Your task to perform on an android device: move an email to a new category in the gmail app Image 0: 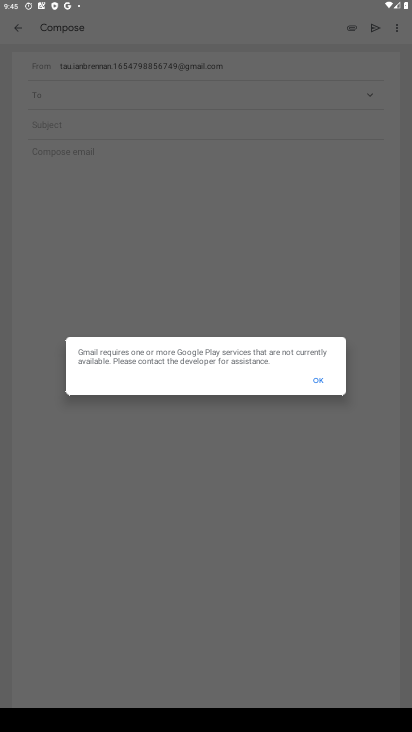
Step 0: press home button
Your task to perform on an android device: move an email to a new category in the gmail app Image 1: 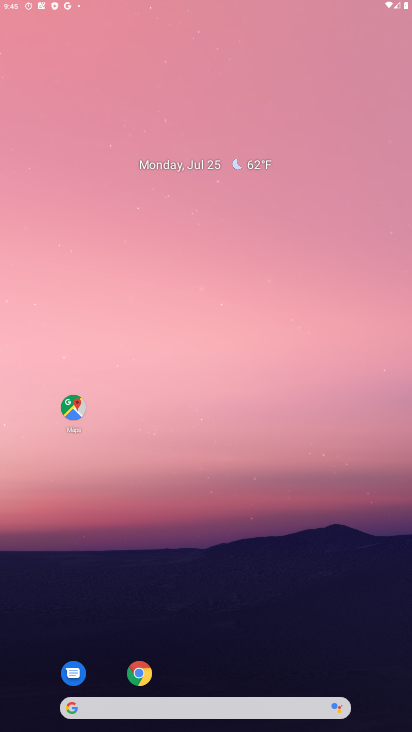
Step 1: drag from (190, 556) to (316, 27)
Your task to perform on an android device: move an email to a new category in the gmail app Image 2: 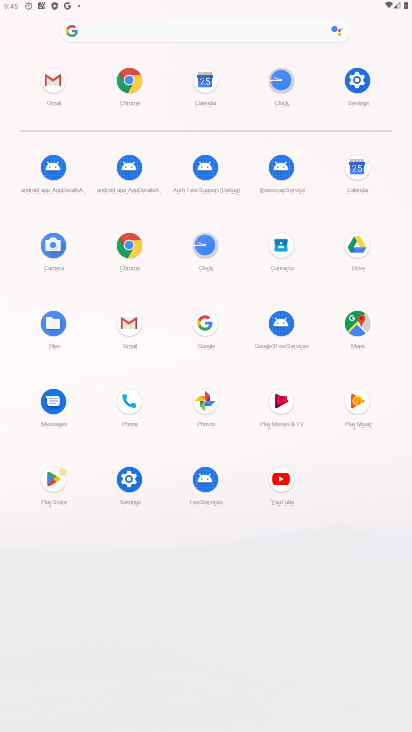
Step 2: click (126, 316)
Your task to perform on an android device: move an email to a new category in the gmail app Image 3: 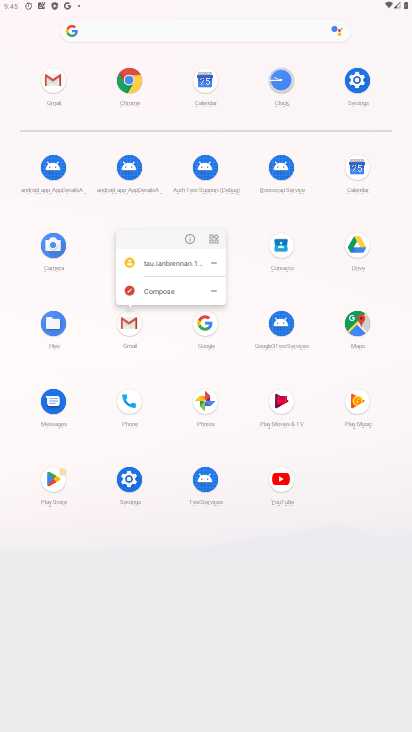
Step 3: click (189, 239)
Your task to perform on an android device: move an email to a new category in the gmail app Image 4: 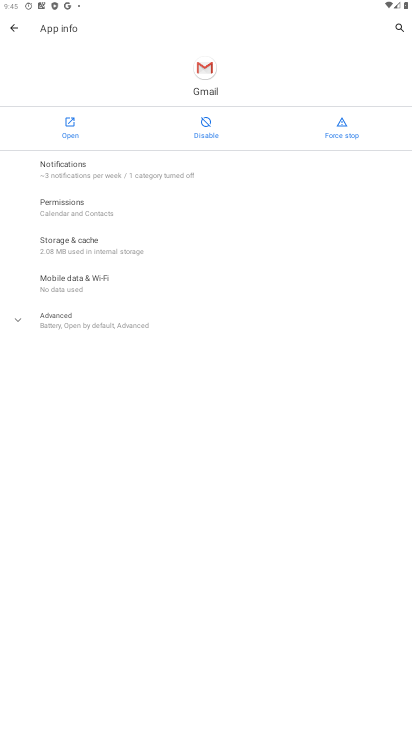
Step 4: click (67, 123)
Your task to perform on an android device: move an email to a new category in the gmail app Image 5: 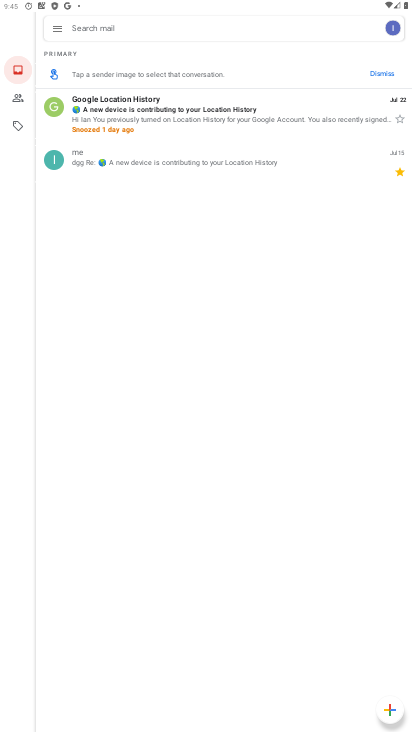
Step 5: drag from (182, 598) to (188, 330)
Your task to perform on an android device: move an email to a new category in the gmail app Image 6: 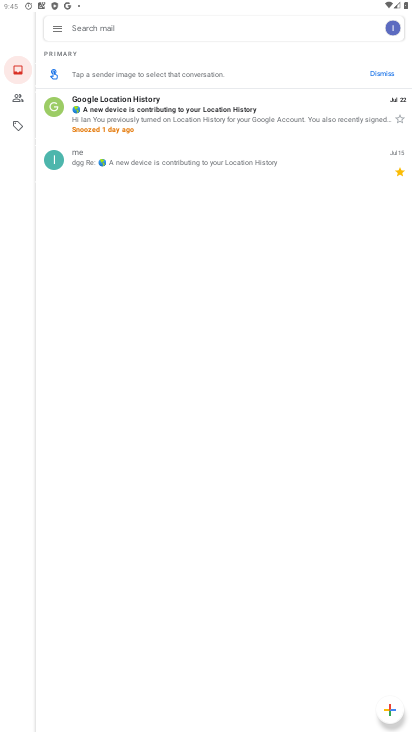
Step 6: click (134, 92)
Your task to perform on an android device: move an email to a new category in the gmail app Image 7: 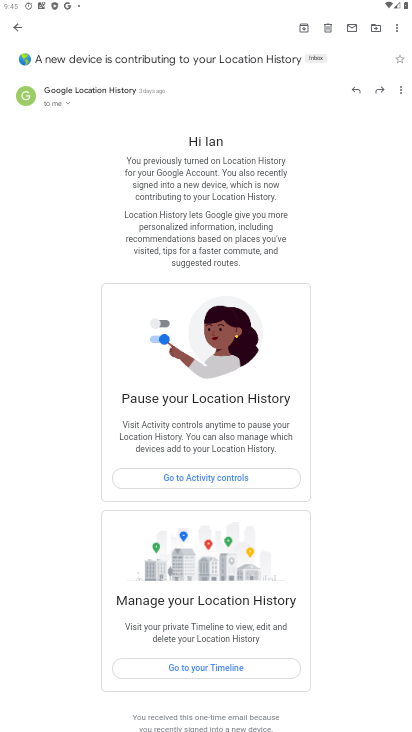
Step 7: click (395, 62)
Your task to perform on an android device: move an email to a new category in the gmail app Image 8: 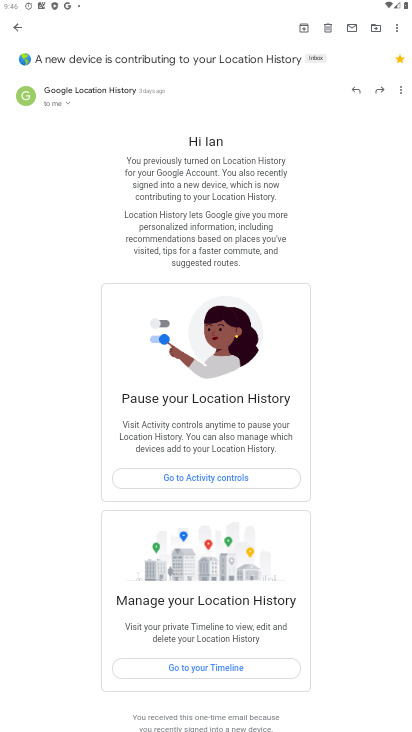
Step 8: task complete